Your task to perform on an android device: Go to Google maps Image 0: 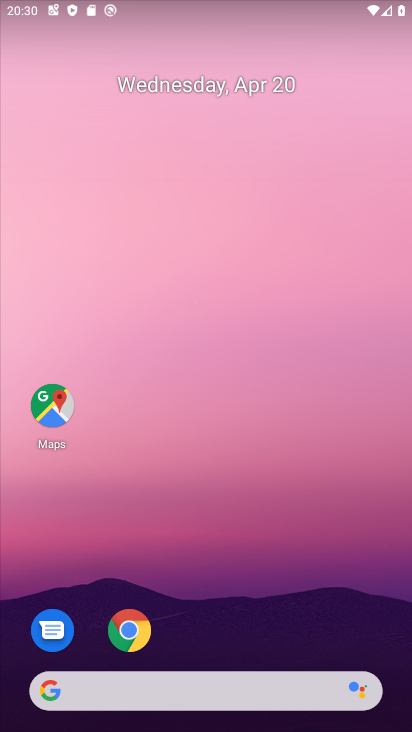
Step 0: click (43, 407)
Your task to perform on an android device: Go to Google maps Image 1: 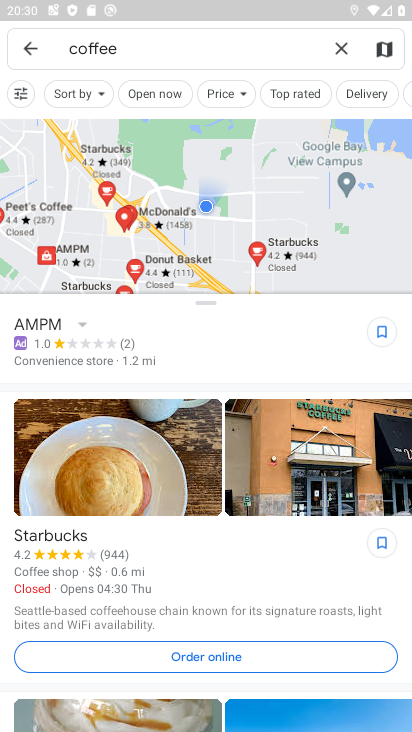
Step 1: task complete